Your task to perform on an android device: Open internet settings Image 0: 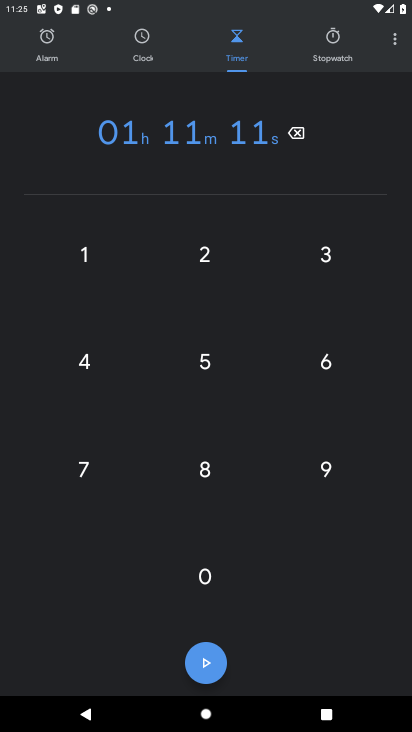
Step 0: press home button
Your task to perform on an android device: Open internet settings Image 1: 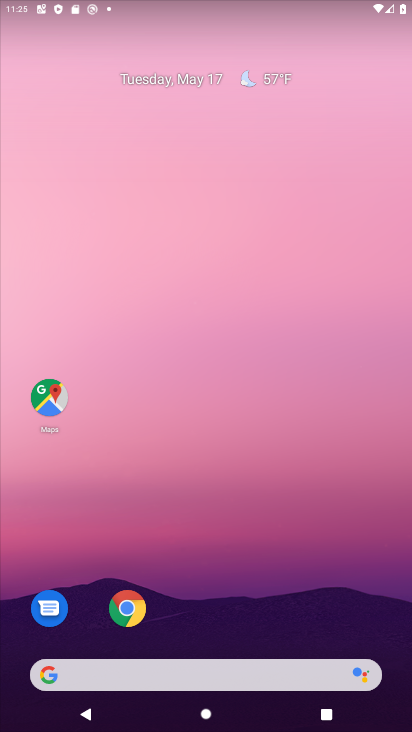
Step 1: drag from (246, 529) to (170, 113)
Your task to perform on an android device: Open internet settings Image 2: 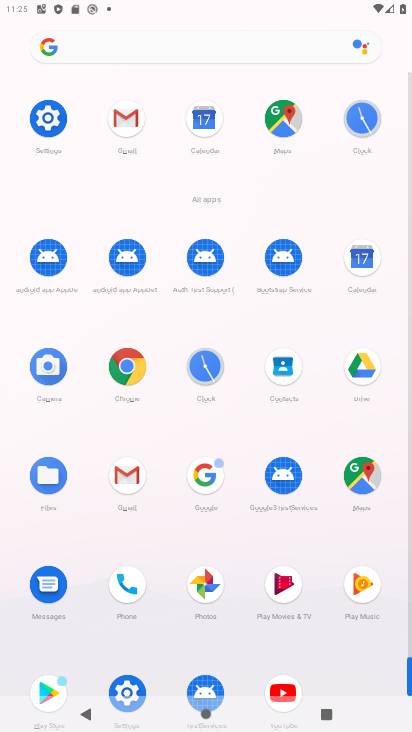
Step 2: click (42, 117)
Your task to perform on an android device: Open internet settings Image 3: 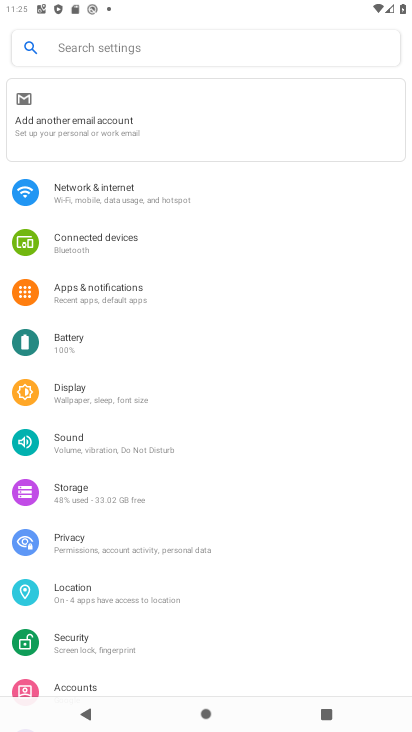
Step 3: click (113, 189)
Your task to perform on an android device: Open internet settings Image 4: 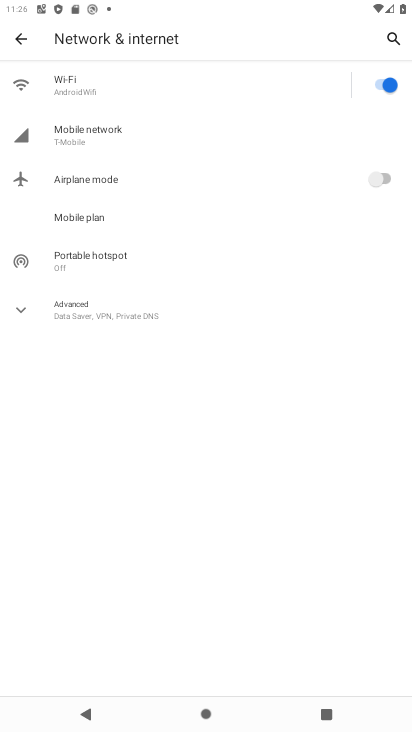
Step 4: click (120, 126)
Your task to perform on an android device: Open internet settings Image 5: 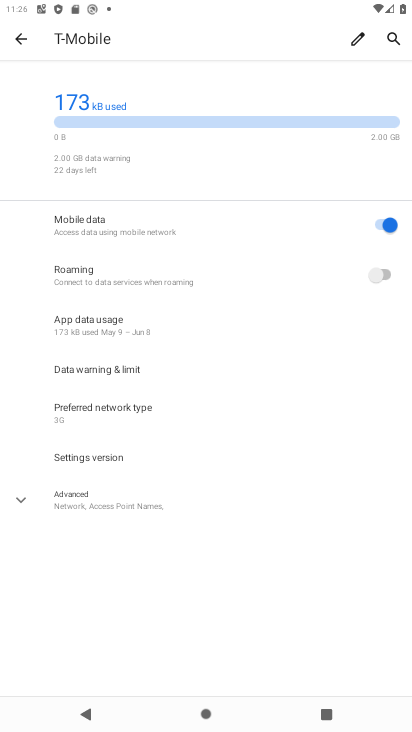
Step 5: task complete